Your task to perform on an android device: Go to Maps Image 0: 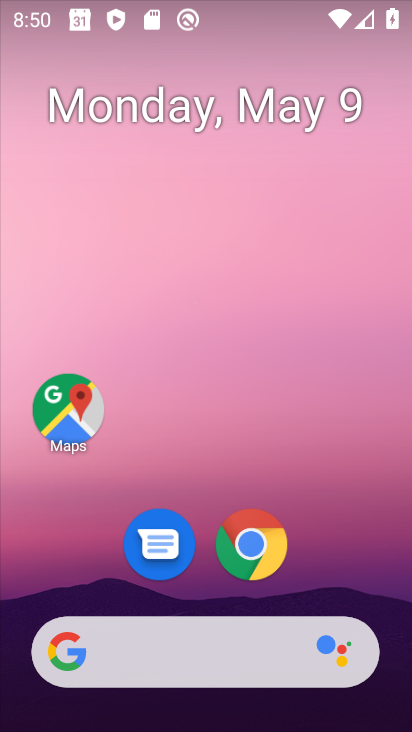
Step 0: click (68, 413)
Your task to perform on an android device: Go to Maps Image 1: 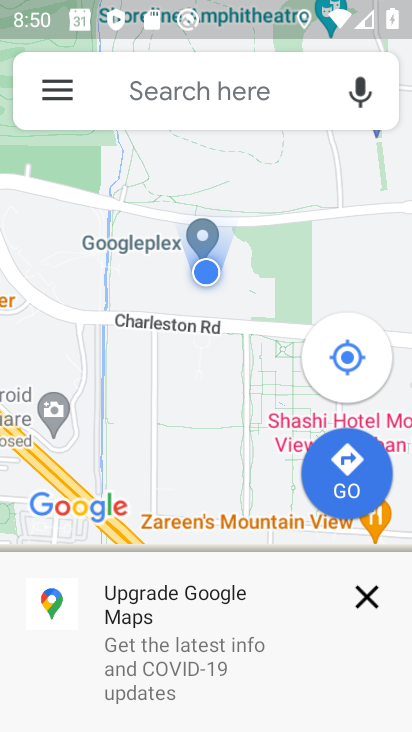
Step 1: task complete